Your task to perform on an android device: Open calendar and show me the fourth week of next month Image 0: 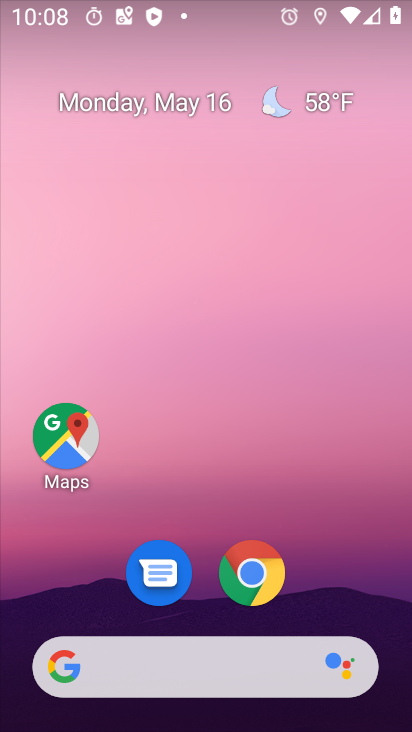
Step 0: drag from (288, 617) to (120, 18)
Your task to perform on an android device: Open calendar and show me the fourth week of next month Image 1: 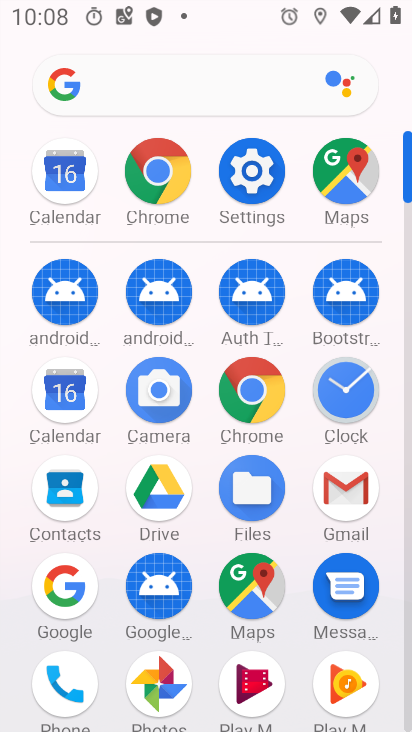
Step 1: click (60, 405)
Your task to perform on an android device: Open calendar and show me the fourth week of next month Image 2: 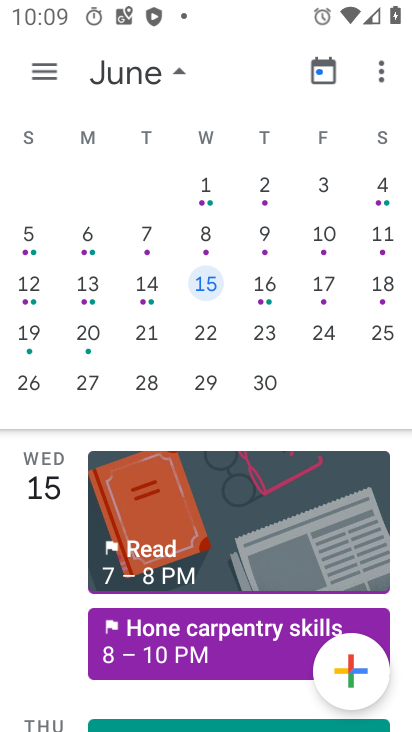
Step 2: click (212, 340)
Your task to perform on an android device: Open calendar and show me the fourth week of next month Image 3: 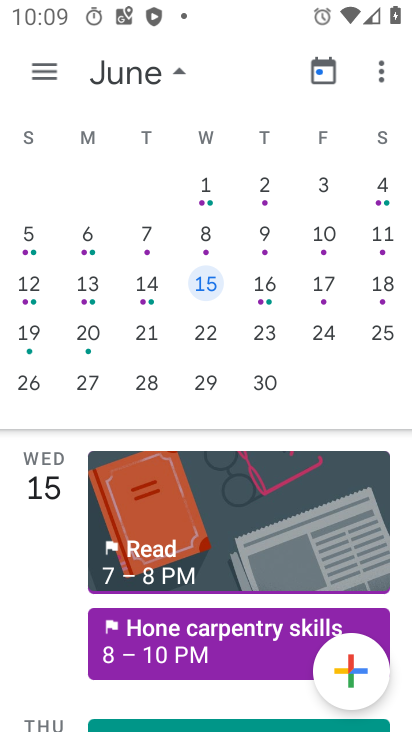
Step 3: click (210, 341)
Your task to perform on an android device: Open calendar and show me the fourth week of next month Image 4: 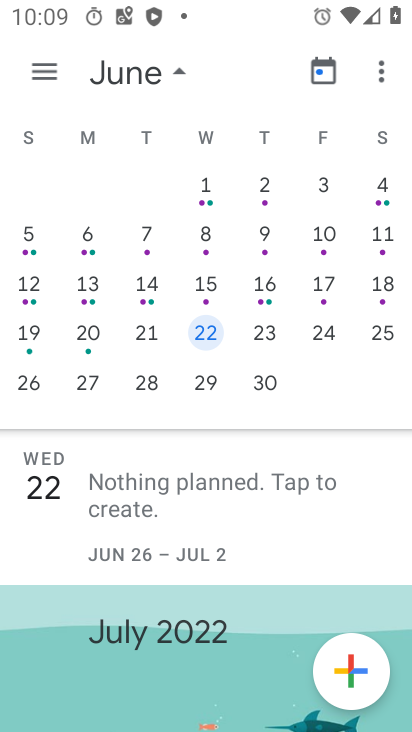
Step 4: click (201, 321)
Your task to perform on an android device: Open calendar and show me the fourth week of next month Image 5: 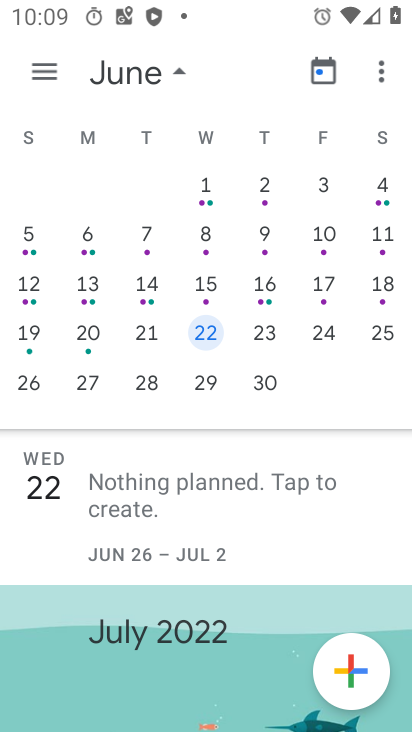
Step 5: click (202, 318)
Your task to perform on an android device: Open calendar and show me the fourth week of next month Image 6: 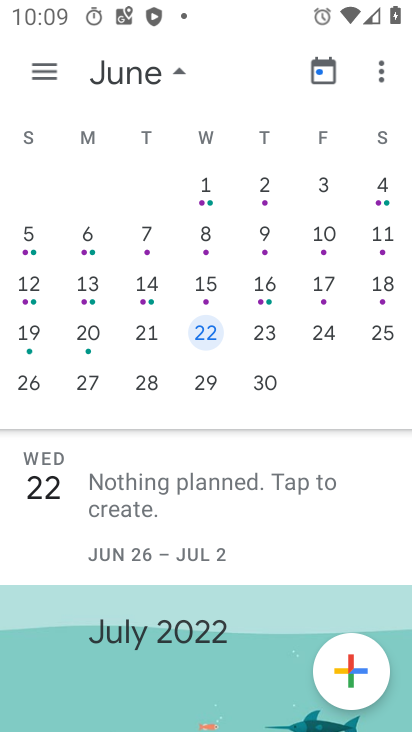
Step 6: click (203, 317)
Your task to perform on an android device: Open calendar and show me the fourth week of next month Image 7: 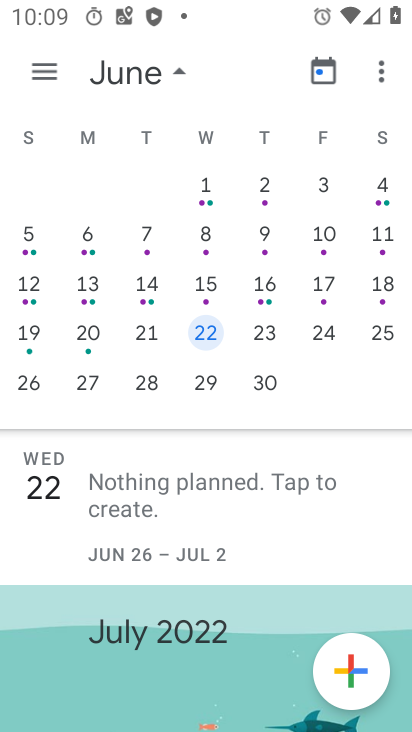
Step 7: click (203, 317)
Your task to perform on an android device: Open calendar and show me the fourth week of next month Image 8: 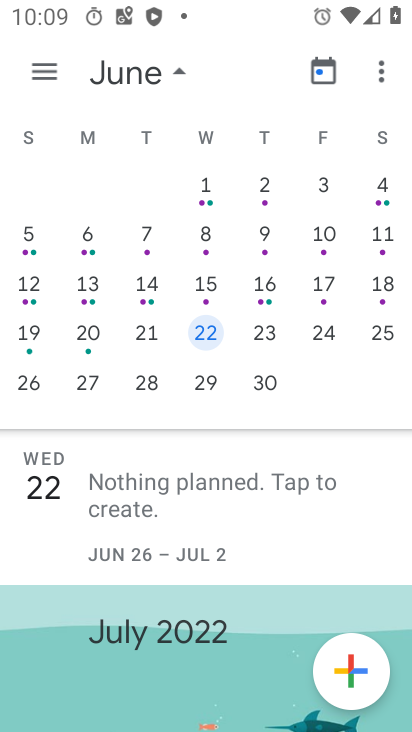
Step 8: task complete